Your task to perform on an android device: set default search engine in the chrome app Image 0: 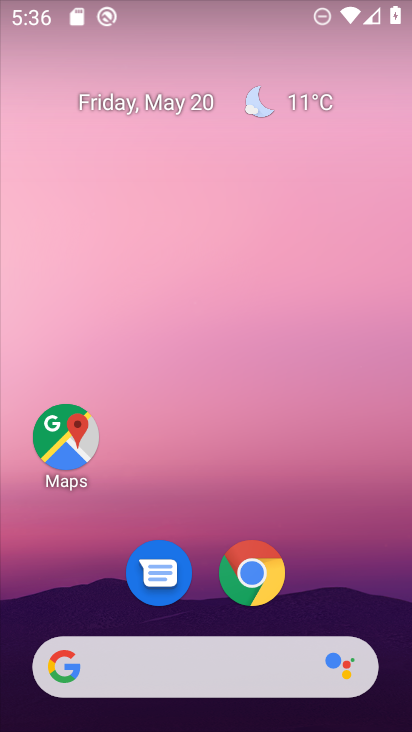
Step 0: click (260, 569)
Your task to perform on an android device: set default search engine in the chrome app Image 1: 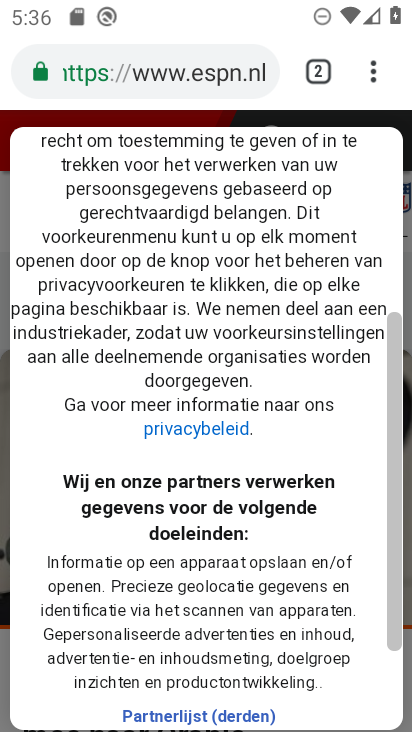
Step 1: click (376, 74)
Your task to perform on an android device: set default search engine in the chrome app Image 2: 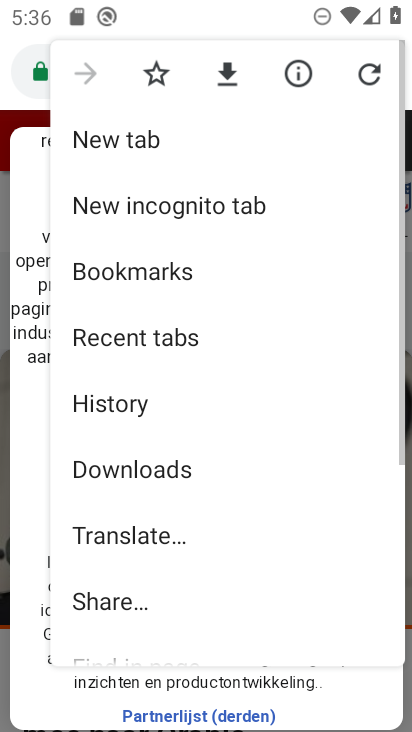
Step 2: drag from (245, 498) to (168, 143)
Your task to perform on an android device: set default search engine in the chrome app Image 3: 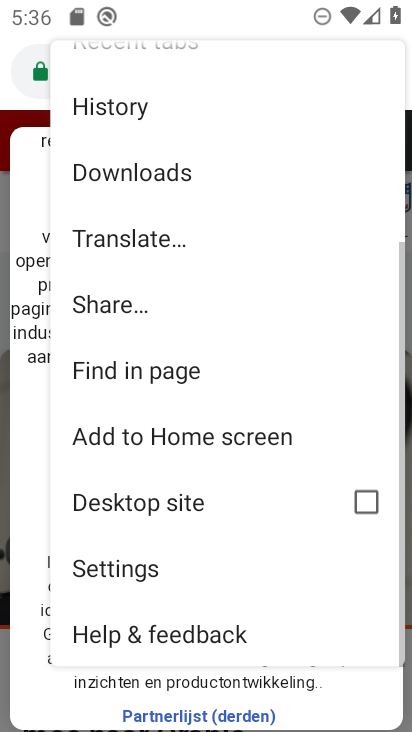
Step 3: click (177, 576)
Your task to perform on an android device: set default search engine in the chrome app Image 4: 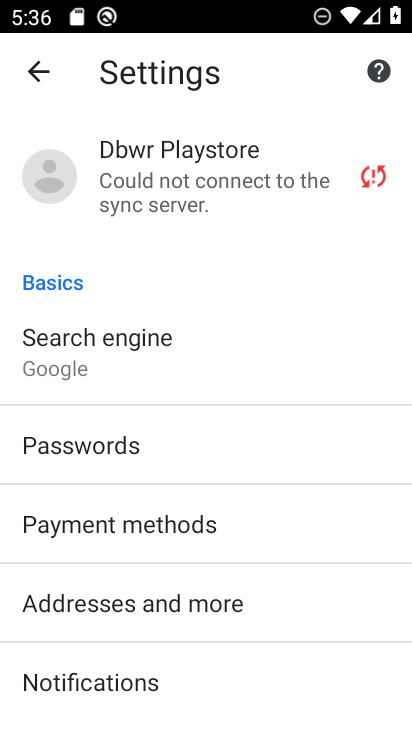
Step 4: click (145, 342)
Your task to perform on an android device: set default search engine in the chrome app Image 5: 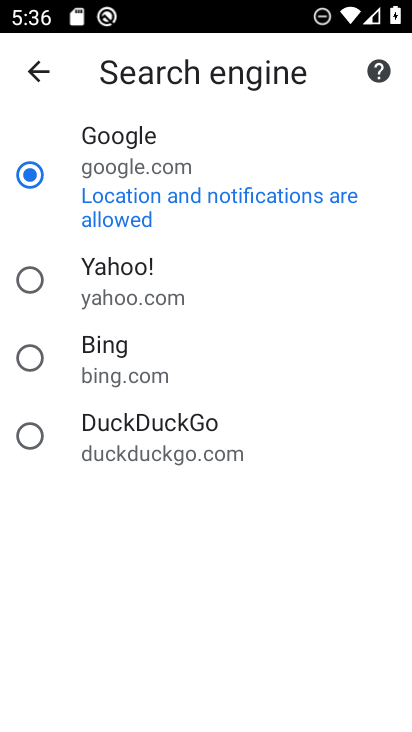
Step 5: click (211, 145)
Your task to perform on an android device: set default search engine in the chrome app Image 6: 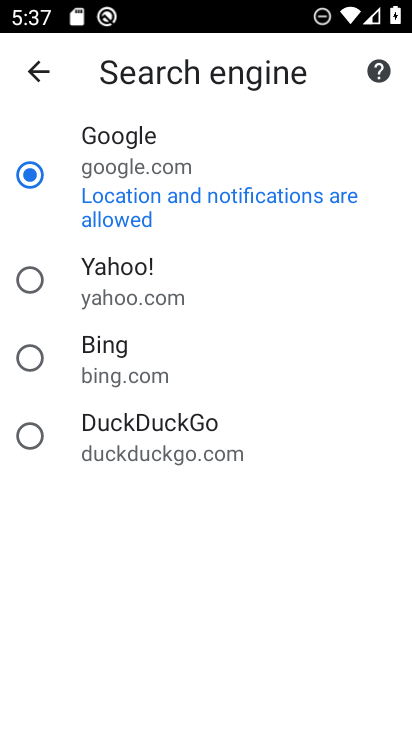
Step 6: task complete